Your task to perform on an android device: turn on notifications settings in the gmail app Image 0: 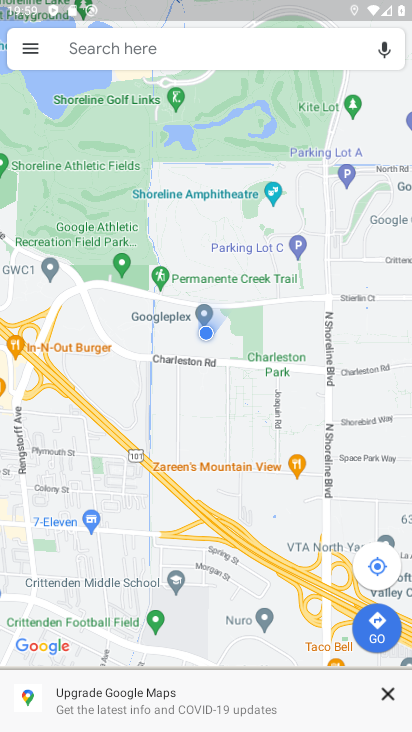
Step 0: press home button
Your task to perform on an android device: turn on notifications settings in the gmail app Image 1: 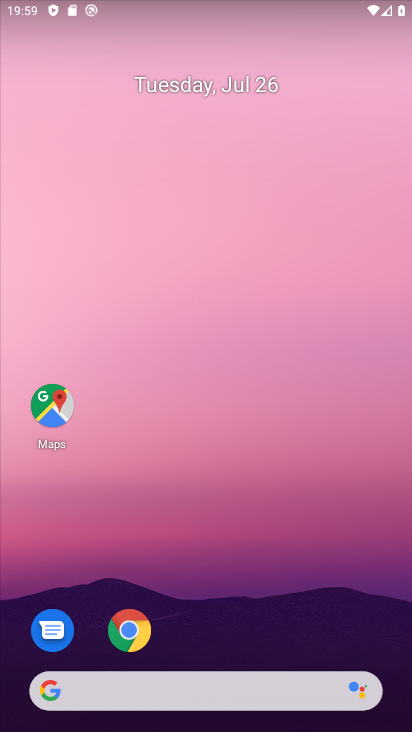
Step 1: drag from (343, 640) to (341, 224)
Your task to perform on an android device: turn on notifications settings in the gmail app Image 2: 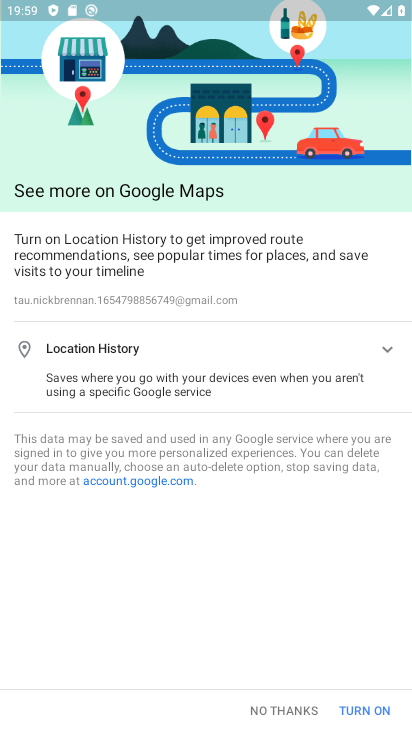
Step 2: press home button
Your task to perform on an android device: turn on notifications settings in the gmail app Image 3: 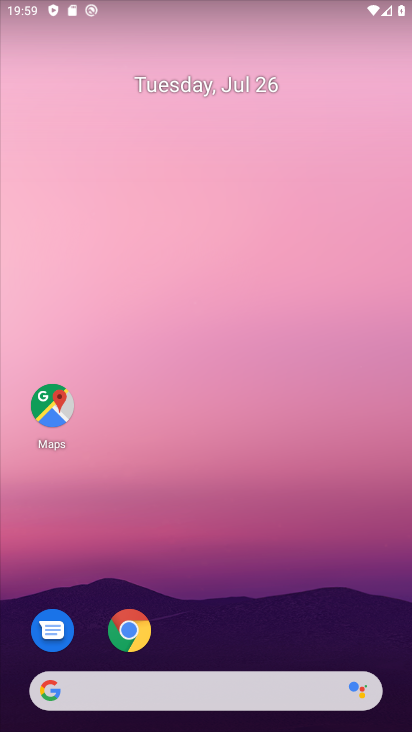
Step 3: drag from (339, 608) to (368, 85)
Your task to perform on an android device: turn on notifications settings in the gmail app Image 4: 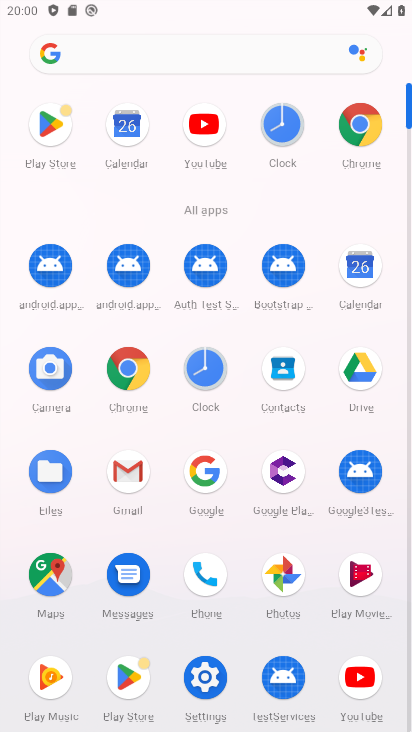
Step 4: click (130, 478)
Your task to perform on an android device: turn on notifications settings in the gmail app Image 5: 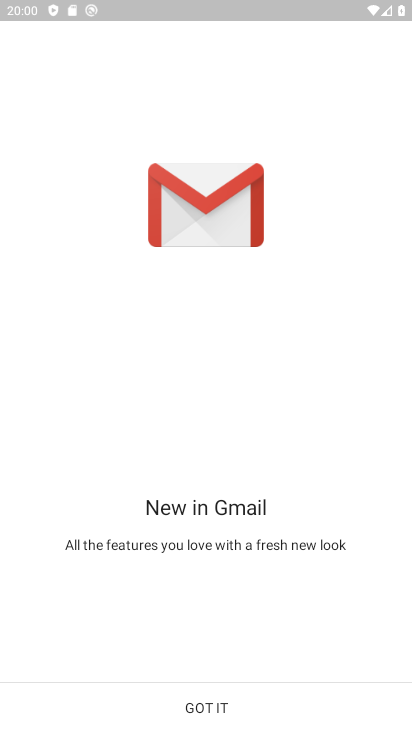
Step 5: click (198, 701)
Your task to perform on an android device: turn on notifications settings in the gmail app Image 6: 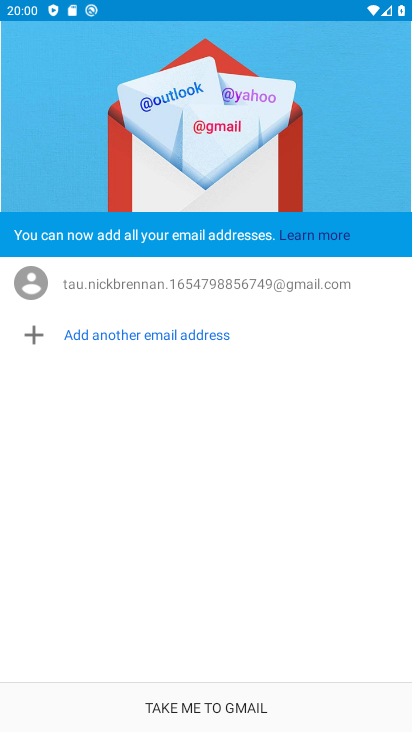
Step 6: click (198, 701)
Your task to perform on an android device: turn on notifications settings in the gmail app Image 7: 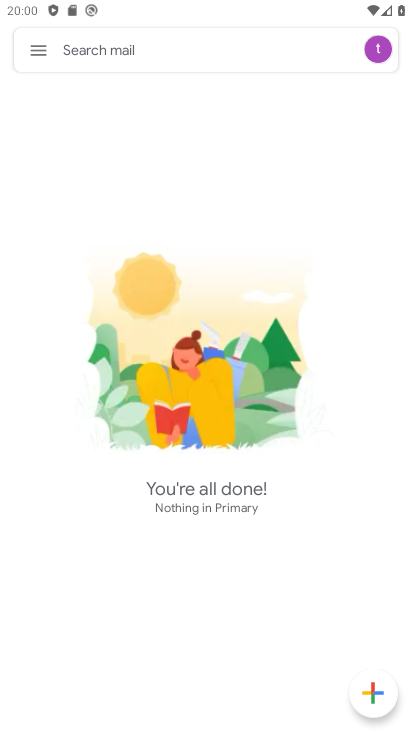
Step 7: click (39, 49)
Your task to perform on an android device: turn on notifications settings in the gmail app Image 8: 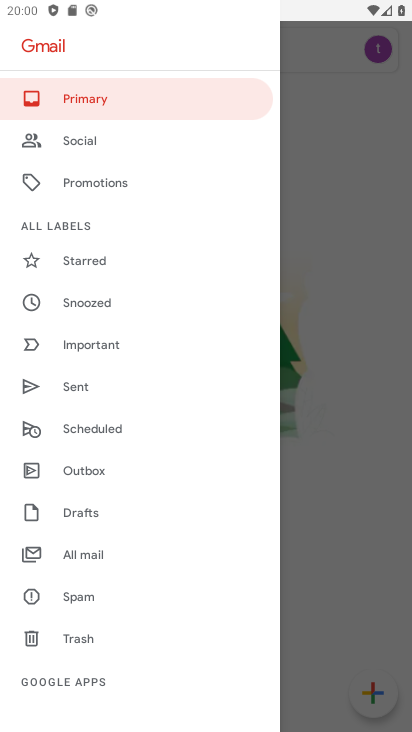
Step 8: drag from (200, 430) to (209, 310)
Your task to perform on an android device: turn on notifications settings in the gmail app Image 9: 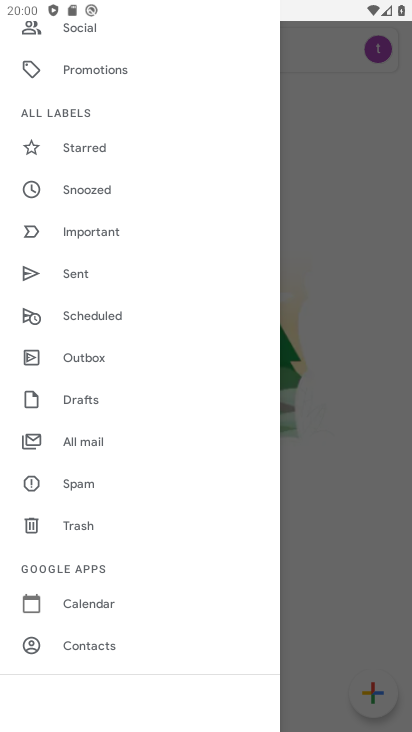
Step 9: drag from (192, 447) to (187, 251)
Your task to perform on an android device: turn on notifications settings in the gmail app Image 10: 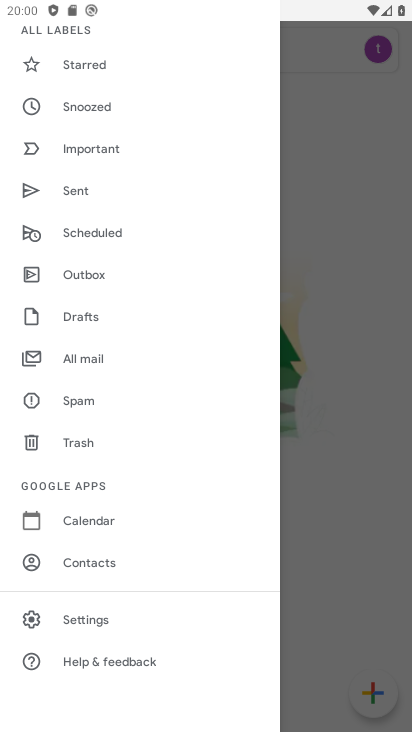
Step 10: click (107, 615)
Your task to perform on an android device: turn on notifications settings in the gmail app Image 11: 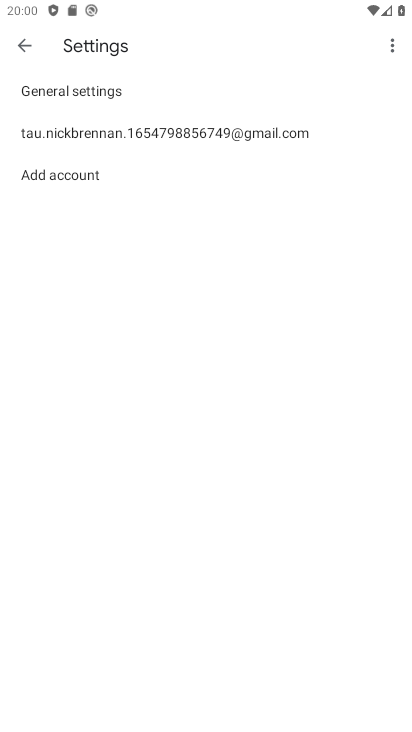
Step 11: click (196, 134)
Your task to perform on an android device: turn on notifications settings in the gmail app Image 12: 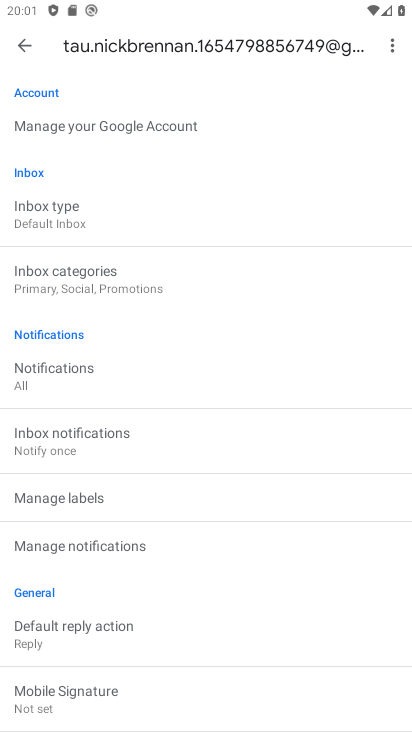
Step 12: drag from (252, 397) to (265, 336)
Your task to perform on an android device: turn on notifications settings in the gmail app Image 13: 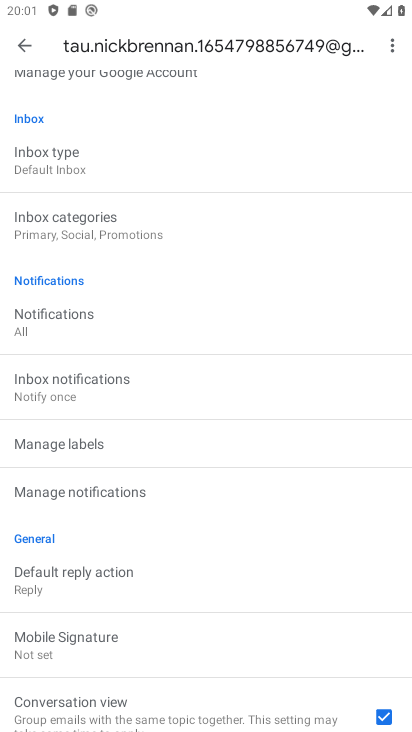
Step 13: drag from (275, 510) to (288, 444)
Your task to perform on an android device: turn on notifications settings in the gmail app Image 14: 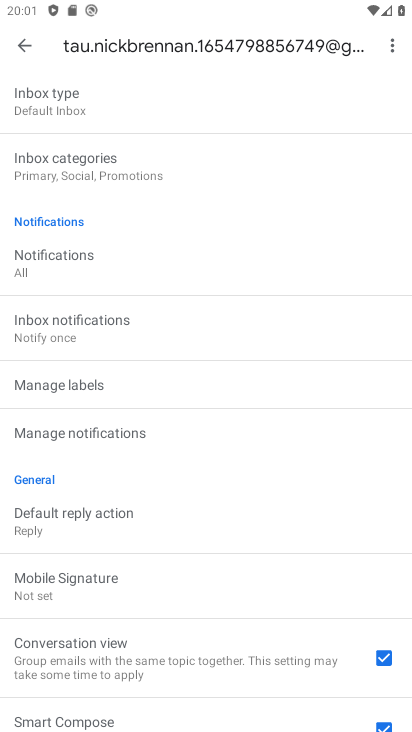
Step 14: drag from (253, 545) to (256, 449)
Your task to perform on an android device: turn on notifications settings in the gmail app Image 15: 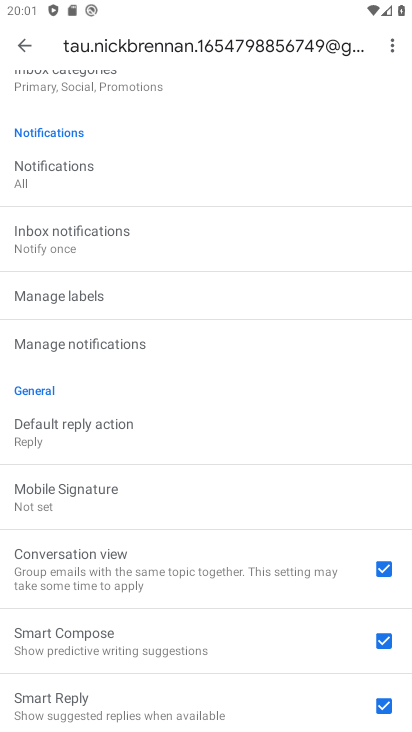
Step 15: drag from (226, 547) to (226, 448)
Your task to perform on an android device: turn on notifications settings in the gmail app Image 16: 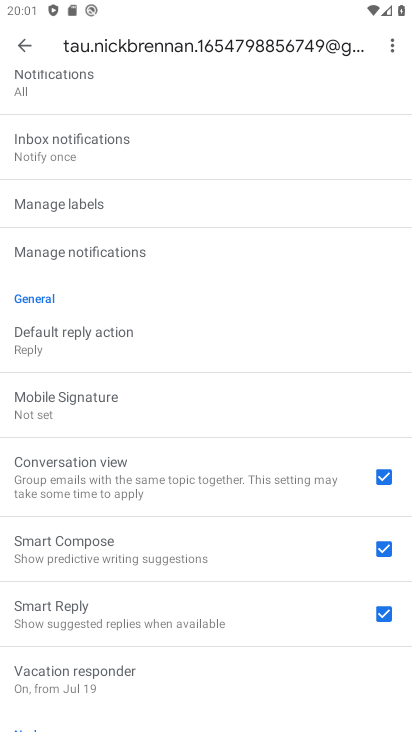
Step 16: click (213, 247)
Your task to perform on an android device: turn on notifications settings in the gmail app Image 17: 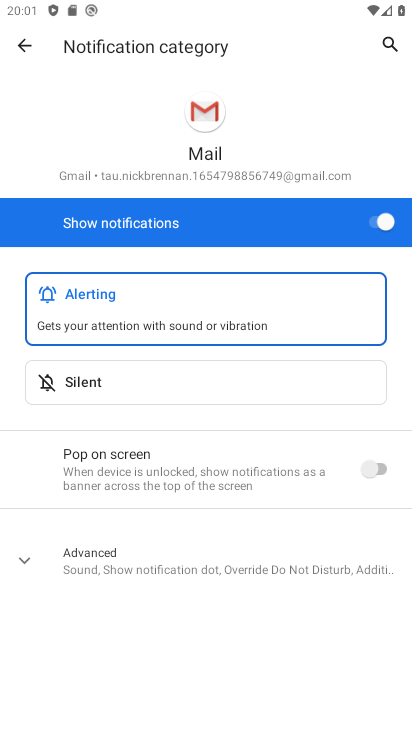
Step 17: task complete